Your task to perform on an android device: create a new album in the google photos Image 0: 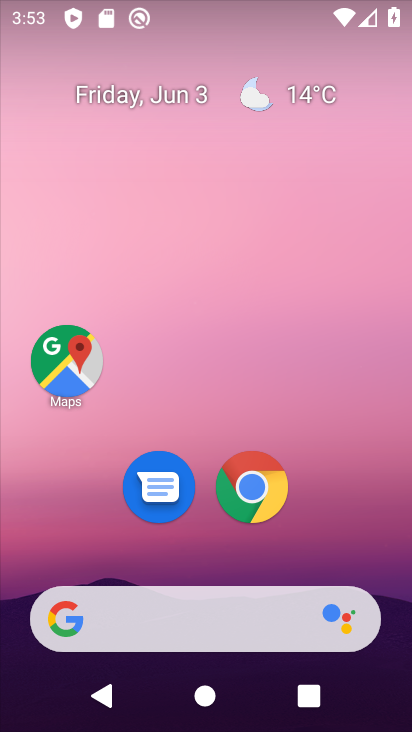
Step 0: drag from (186, 550) to (253, 71)
Your task to perform on an android device: create a new album in the google photos Image 1: 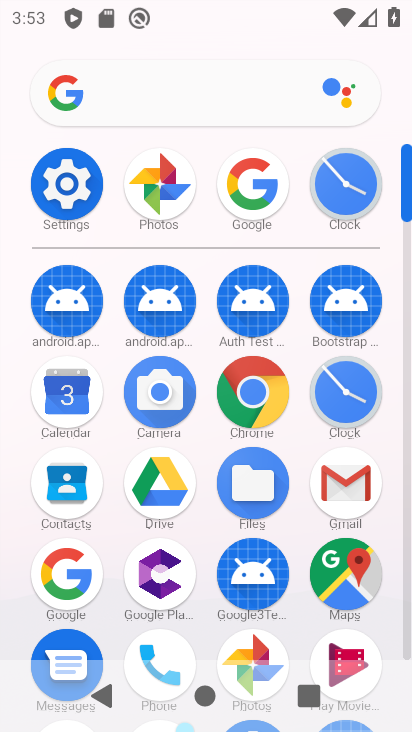
Step 1: click (258, 639)
Your task to perform on an android device: create a new album in the google photos Image 2: 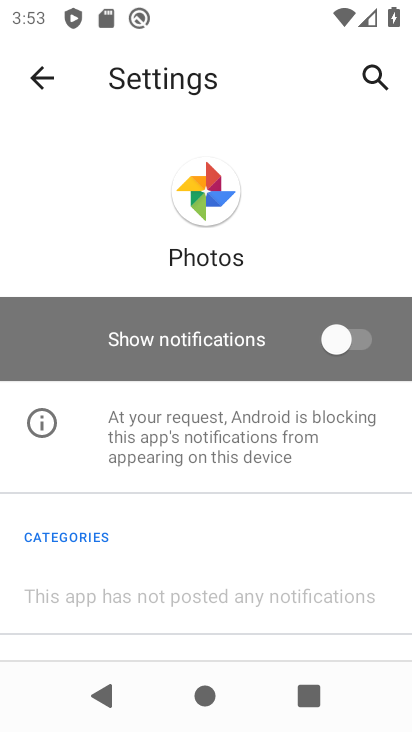
Step 2: click (51, 69)
Your task to perform on an android device: create a new album in the google photos Image 3: 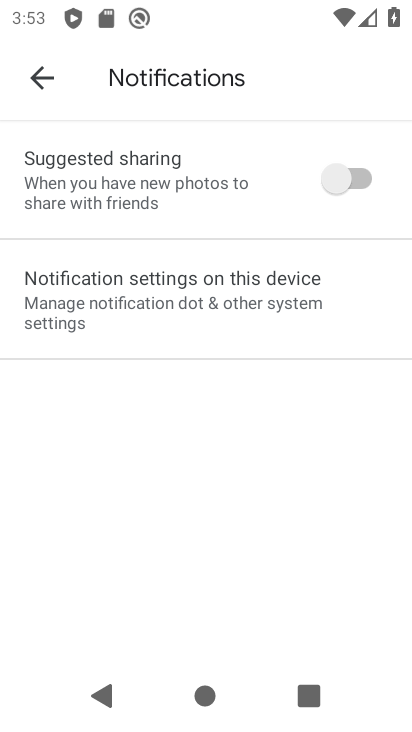
Step 3: click (51, 69)
Your task to perform on an android device: create a new album in the google photos Image 4: 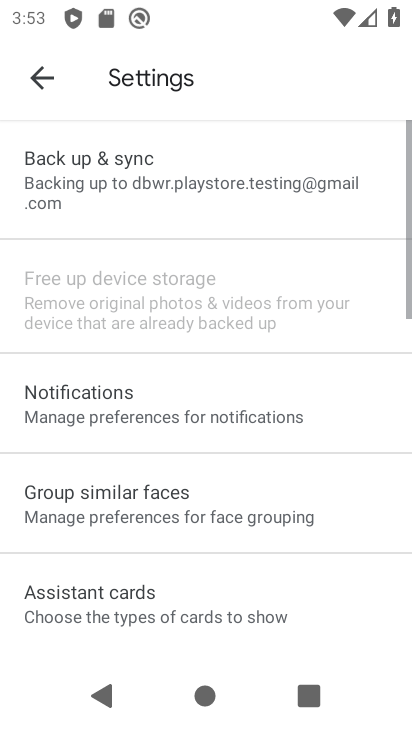
Step 4: click (38, 69)
Your task to perform on an android device: create a new album in the google photos Image 5: 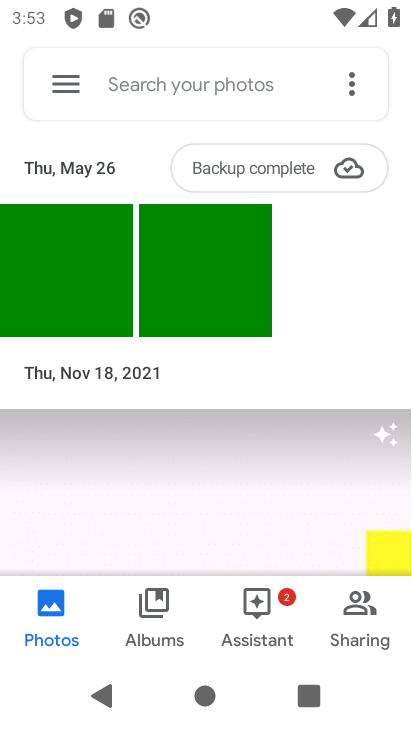
Step 5: click (346, 79)
Your task to perform on an android device: create a new album in the google photos Image 6: 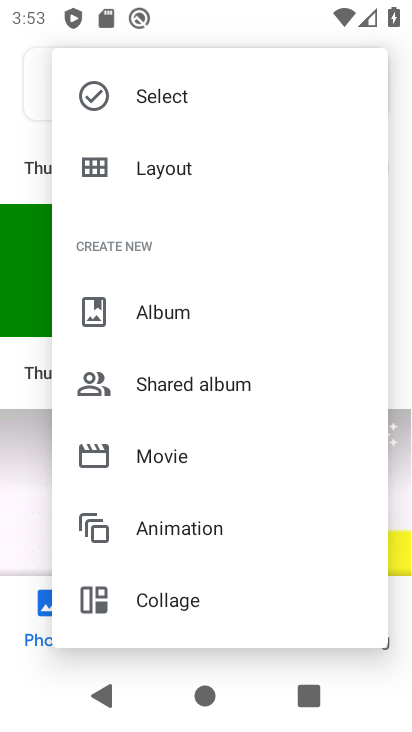
Step 6: click (165, 311)
Your task to perform on an android device: create a new album in the google photos Image 7: 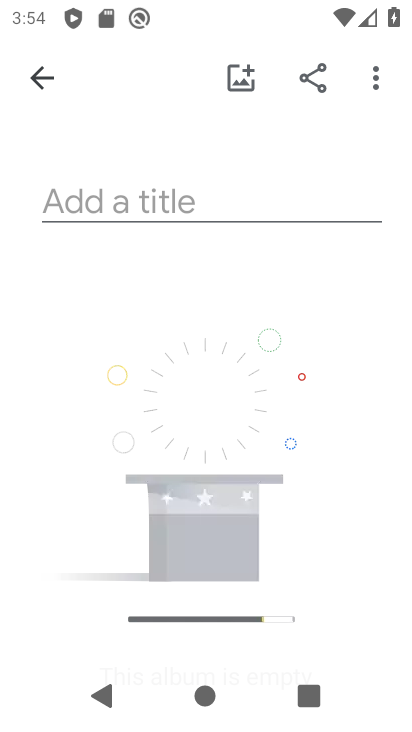
Step 7: click (135, 193)
Your task to perform on an android device: create a new album in the google photos Image 8: 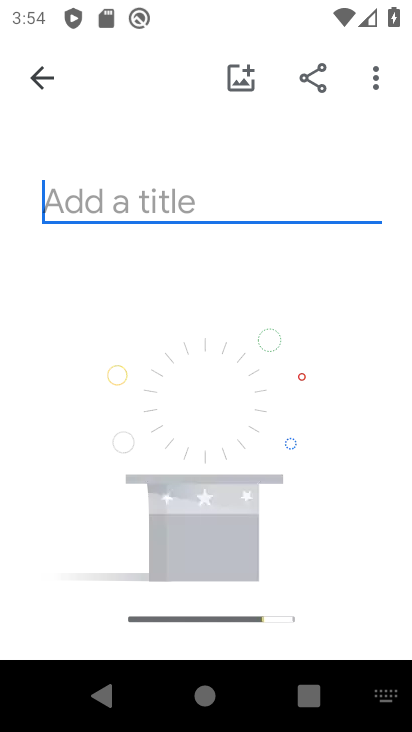
Step 8: type "vhv"
Your task to perform on an android device: create a new album in the google photos Image 9: 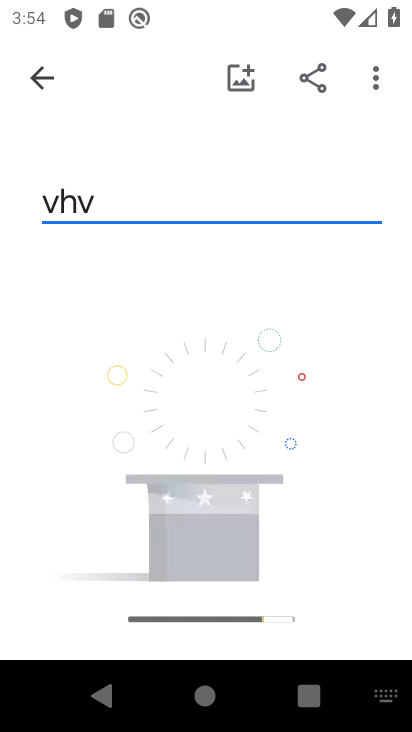
Step 9: drag from (166, 504) to (210, 53)
Your task to perform on an android device: create a new album in the google photos Image 10: 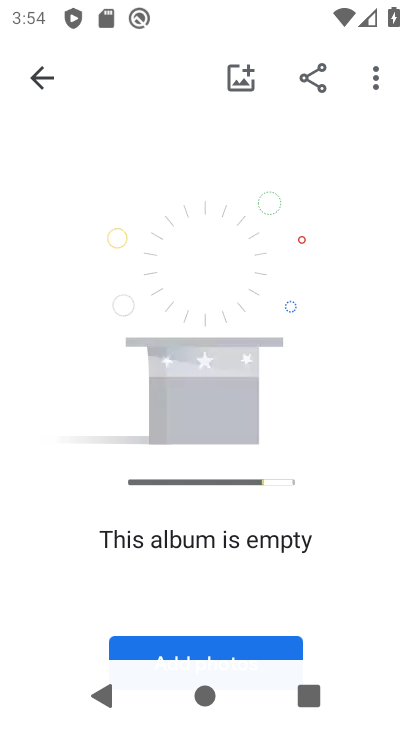
Step 10: drag from (177, 563) to (252, 127)
Your task to perform on an android device: create a new album in the google photos Image 11: 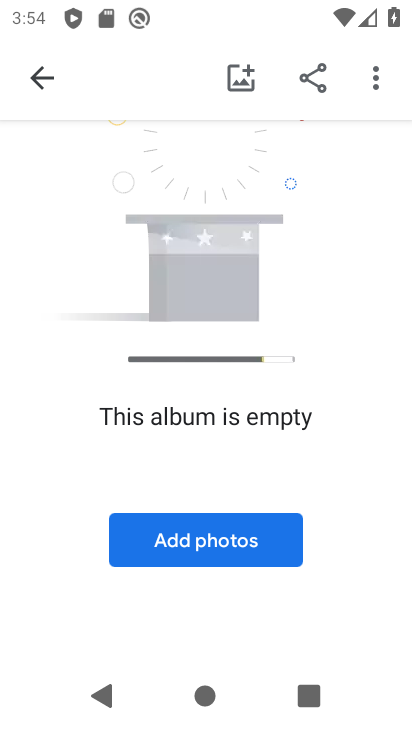
Step 11: click (213, 557)
Your task to perform on an android device: create a new album in the google photos Image 12: 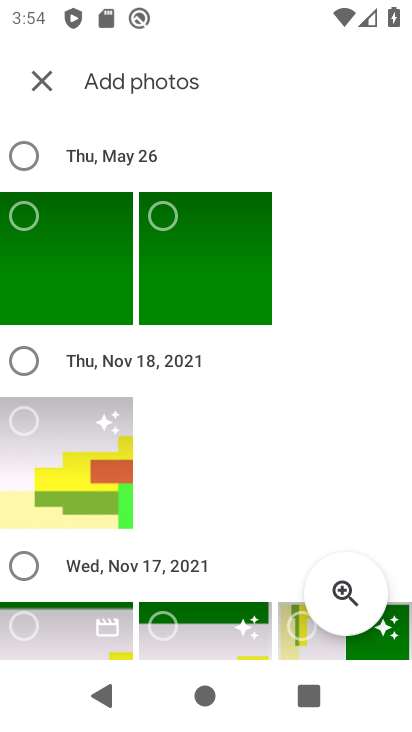
Step 12: click (31, 163)
Your task to perform on an android device: create a new album in the google photos Image 13: 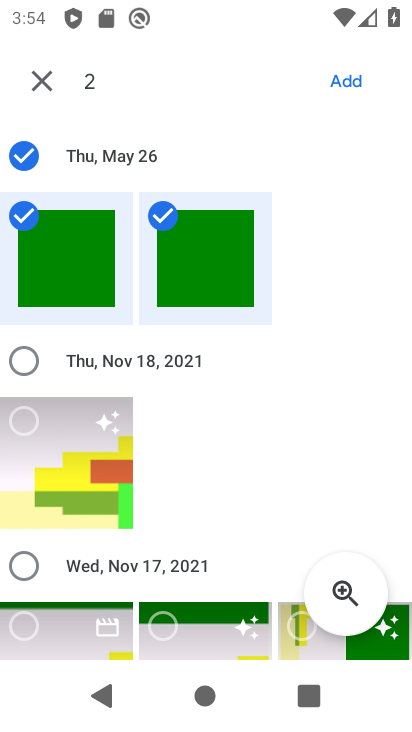
Step 13: click (21, 373)
Your task to perform on an android device: create a new album in the google photos Image 14: 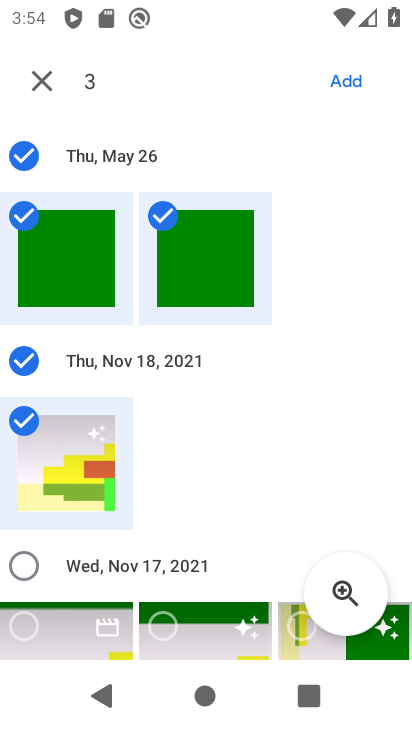
Step 14: click (360, 85)
Your task to perform on an android device: create a new album in the google photos Image 15: 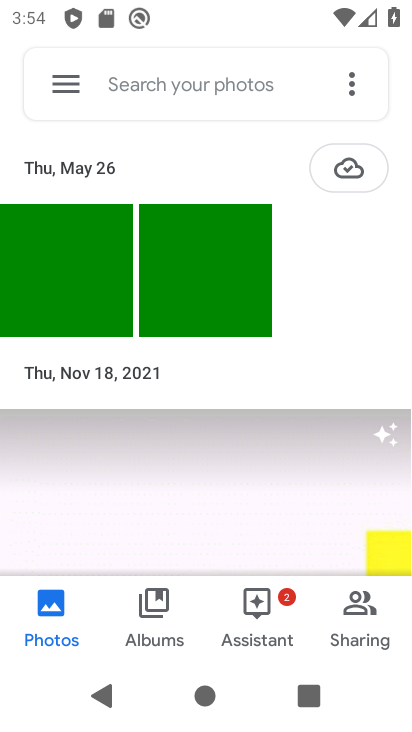
Step 15: task complete